Your task to perform on an android device: set the timer Image 0: 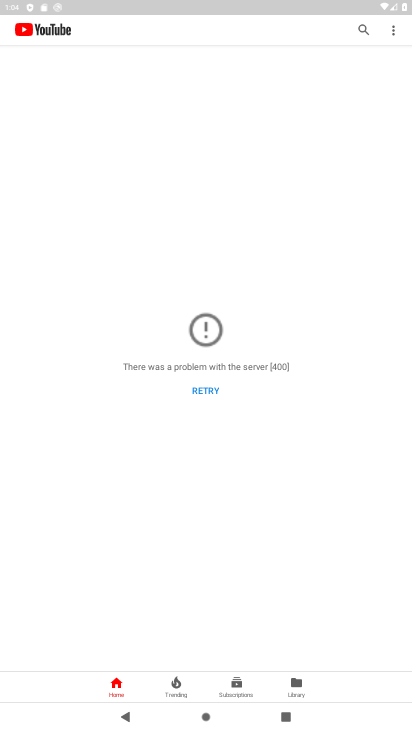
Step 0: press home button
Your task to perform on an android device: set the timer Image 1: 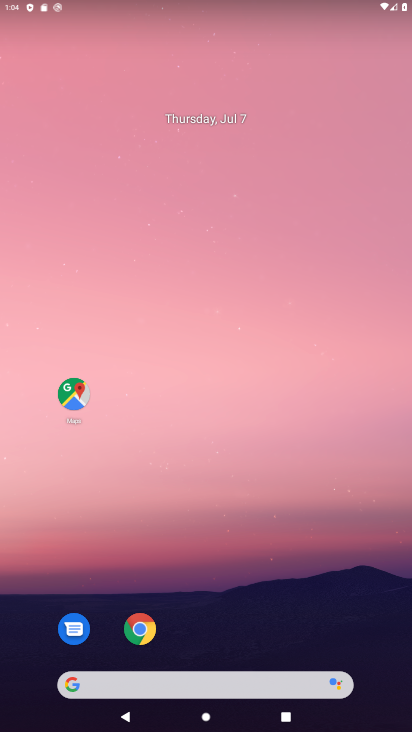
Step 1: drag from (220, 636) to (235, 140)
Your task to perform on an android device: set the timer Image 2: 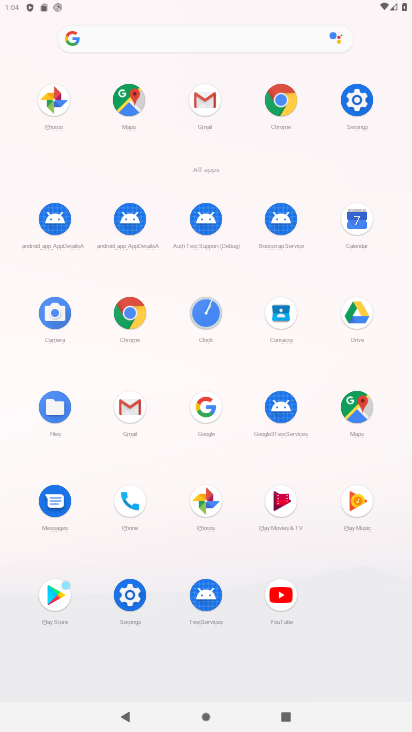
Step 2: click (205, 324)
Your task to perform on an android device: set the timer Image 3: 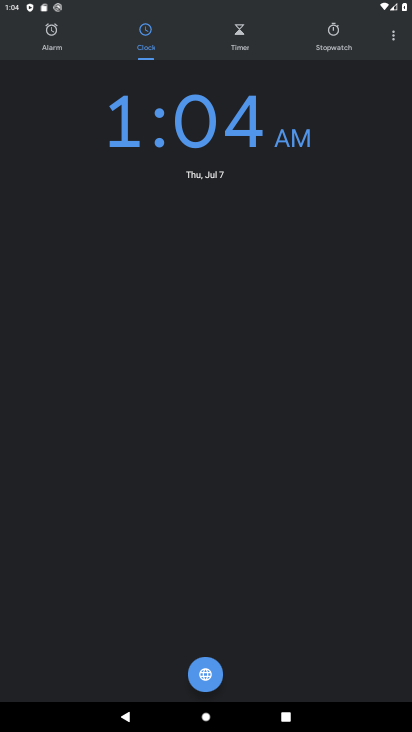
Step 3: click (242, 38)
Your task to perform on an android device: set the timer Image 4: 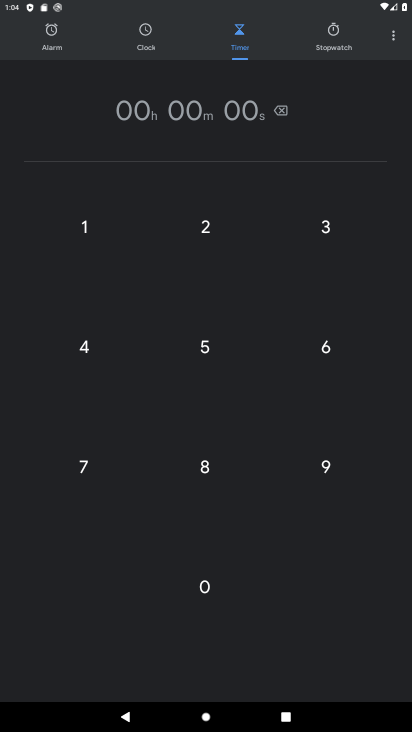
Step 4: click (87, 469)
Your task to perform on an android device: set the timer Image 5: 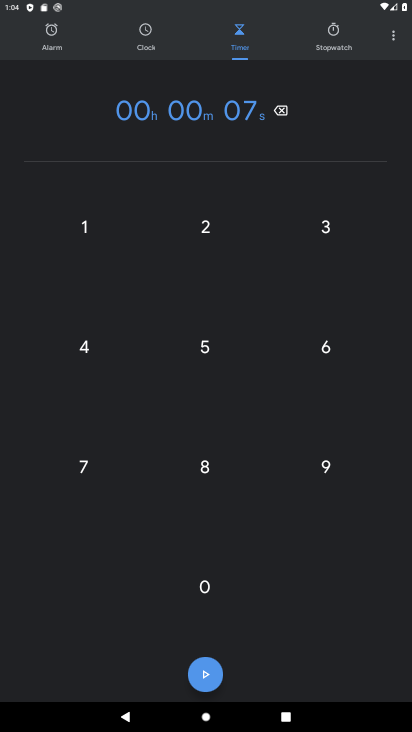
Step 5: click (210, 341)
Your task to perform on an android device: set the timer Image 6: 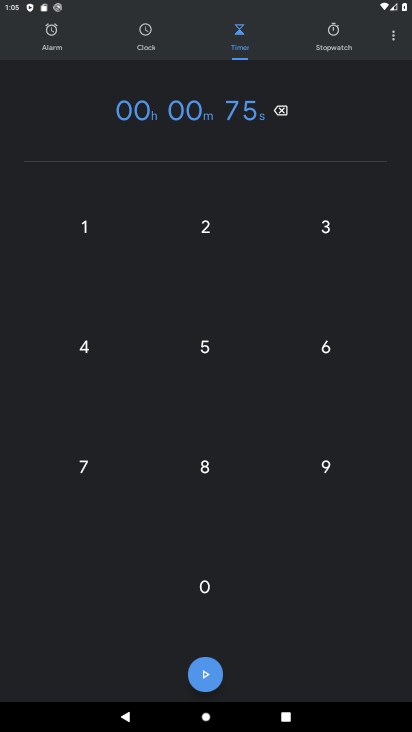
Step 6: click (103, 345)
Your task to perform on an android device: set the timer Image 7: 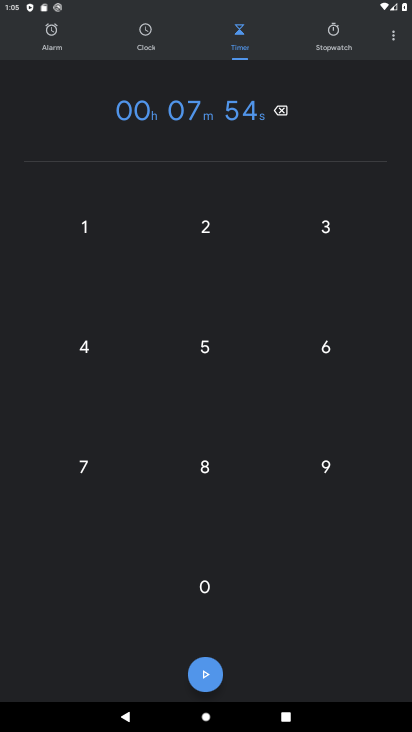
Step 7: click (217, 669)
Your task to perform on an android device: set the timer Image 8: 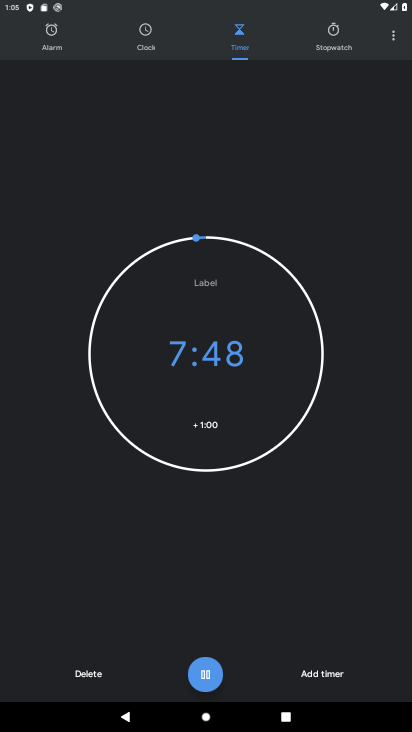
Step 8: task complete